Your task to perform on an android device: turn on bluetooth scan Image 0: 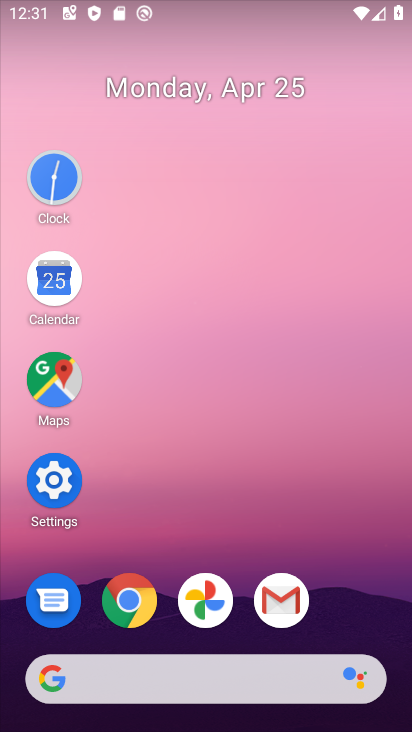
Step 0: click (60, 486)
Your task to perform on an android device: turn on bluetooth scan Image 1: 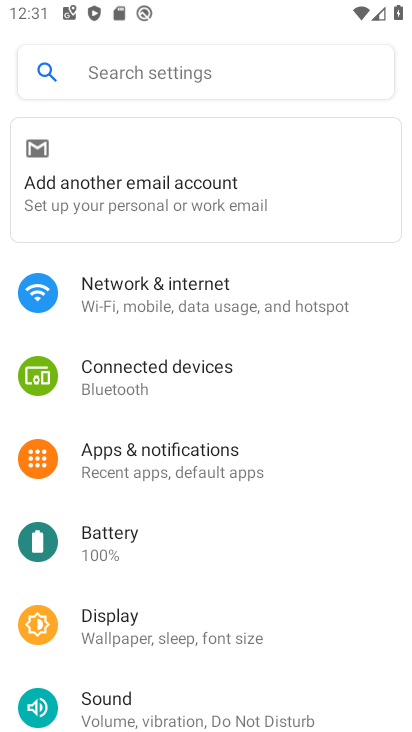
Step 1: drag from (229, 617) to (142, 323)
Your task to perform on an android device: turn on bluetooth scan Image 2: 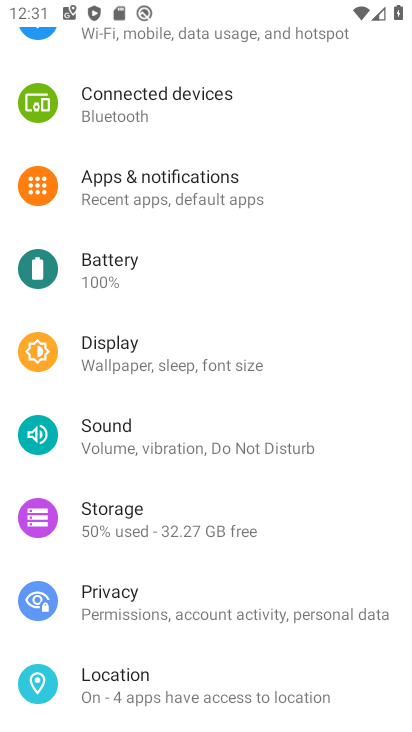
Step 2: click (115, 682)
Your task to perform on an android device: turn on bluetooth scan Image 3: 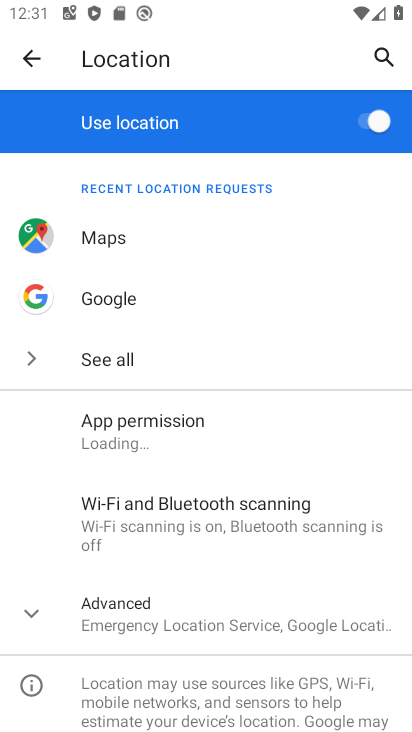
Step 3: click (121, 507)
Your task to perform on an android device: turn on bluetooth scan Image 4: 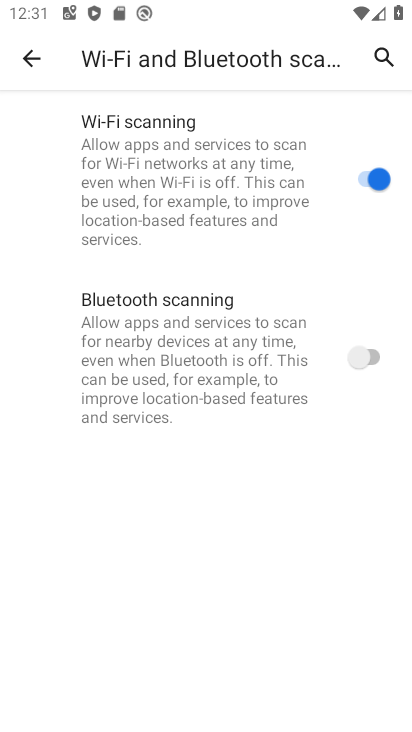
Step 4: click (367, 357)
Your task to perform on an android device: turn on bluetooth scan Image 5: 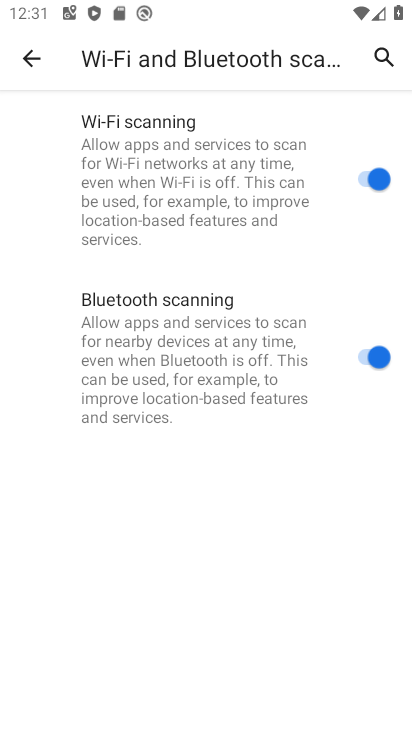
Step 5: task complete